Your task to perform on an android device: Open calendar and show me the second week of next month Image 0: 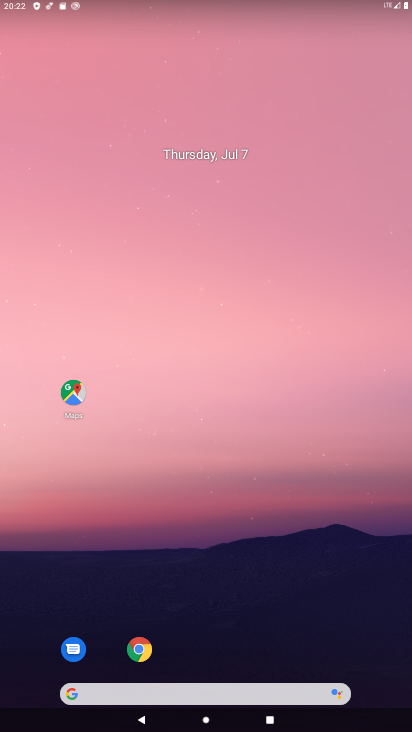
Step 0: drag from (256, 622) to (185, 252)
Your task to perform on an android device: Open calendar and show me the second week of next month Image 1: 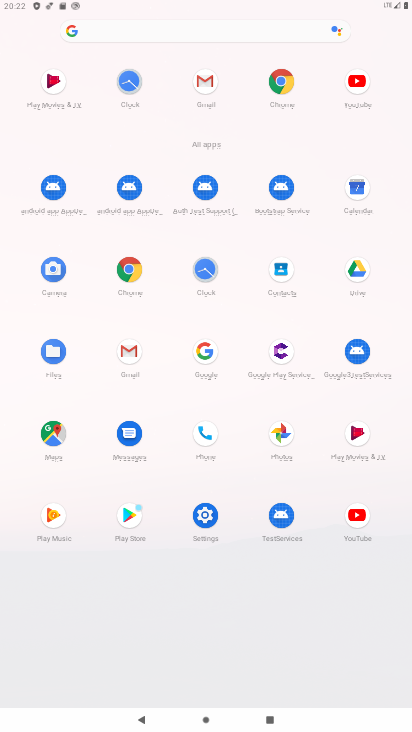
Step 1: click (304, 226)
Your task to perform on an android device: Open calendar and show me the second week of next month Image 2: 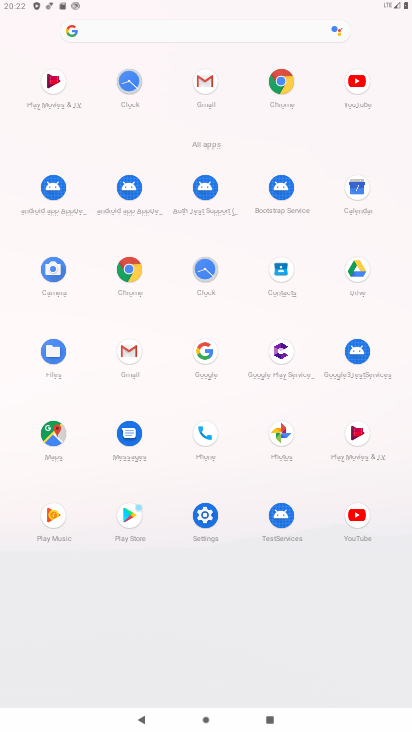
Step 2: click (353, 184)
Your task to perform on an android device: Open calendar and show me the second week of next month Image 3: 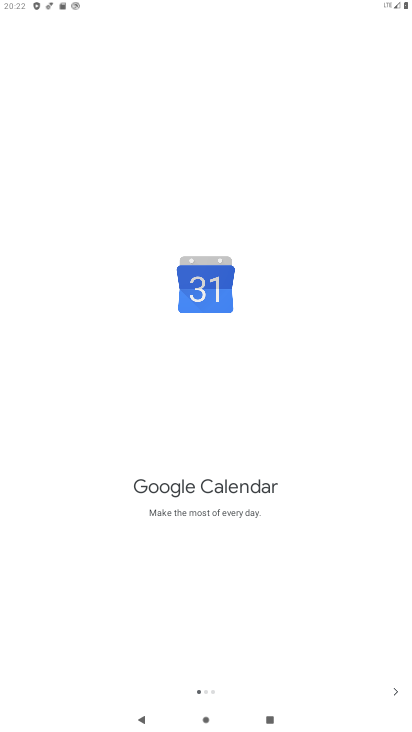
Step 3: click (398, 695)
Your task to perform on an android device: Open calendar and show me the second week of next month Image 4: 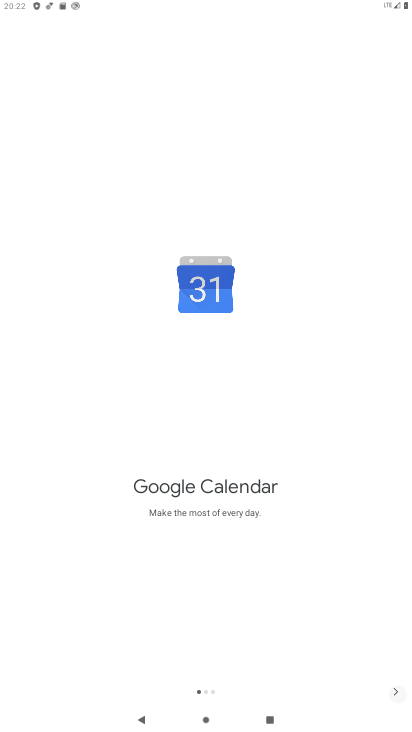
Step 4: click (398, 695)
Your task to perform on an android device: Open calendar and show me the second week of next month Image 5: 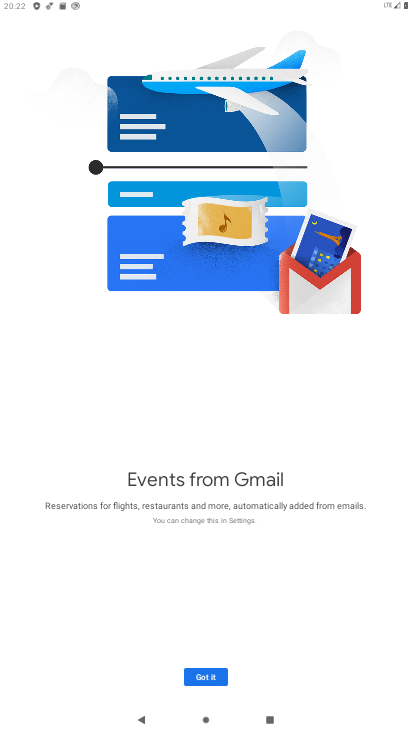
Step 5: click (209, 673)
Your task to perform on an android device: Open calendar and show me the second week of next month Image 6: 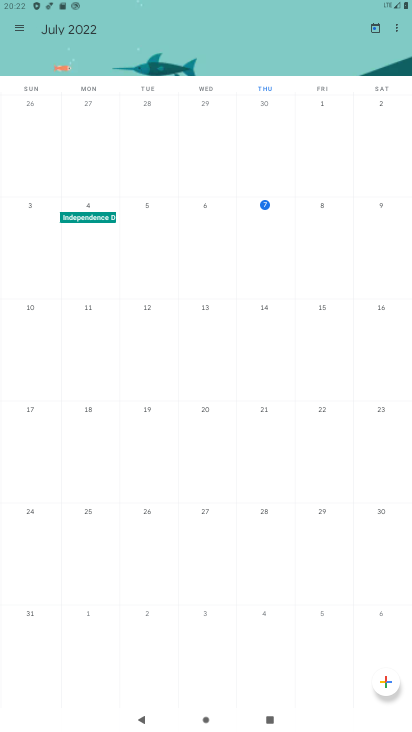
Step 6: click (14, 26)
Your task to perform on an android device: Open calendar and show me the second week of next month Image 7: 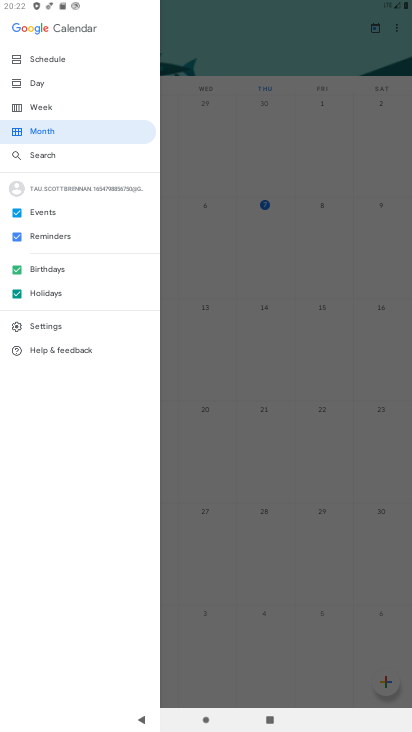
Step 7: click (51, 103)
Your task to perform on an android device: Open calendar and show me the second week of next month Image 8: 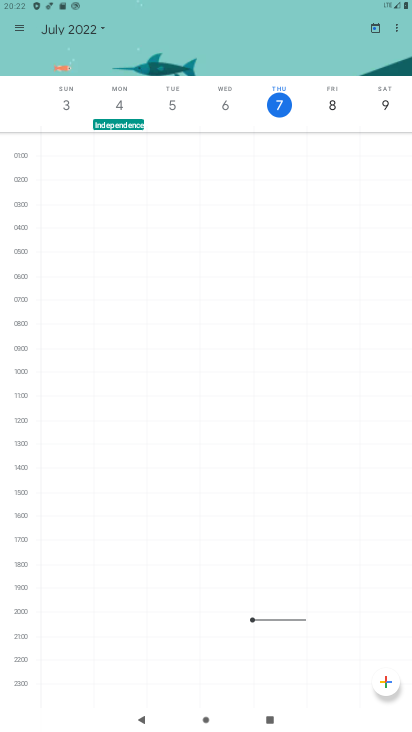
Step 8: click (95, 23)
Your task to perform on an android device: Open calendar and show me the second week of next month Image 9: 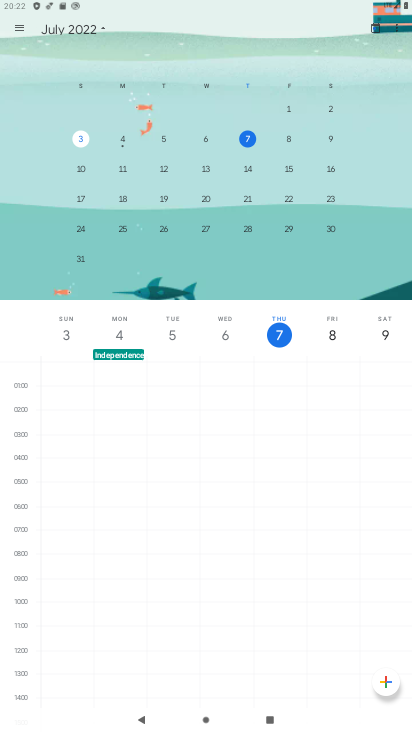
Step 9: drag from (346, 207) to (38, 202)
Your task to perform on an android device: Open calendar and show me the second week of next month Image 10: 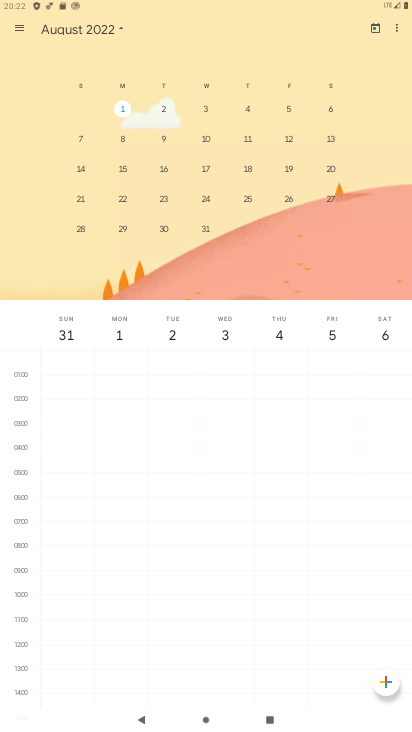
Step 10: click (122, 135)
Your task to perform on an android device: Open calendar and show me the second week of next month Image 11: 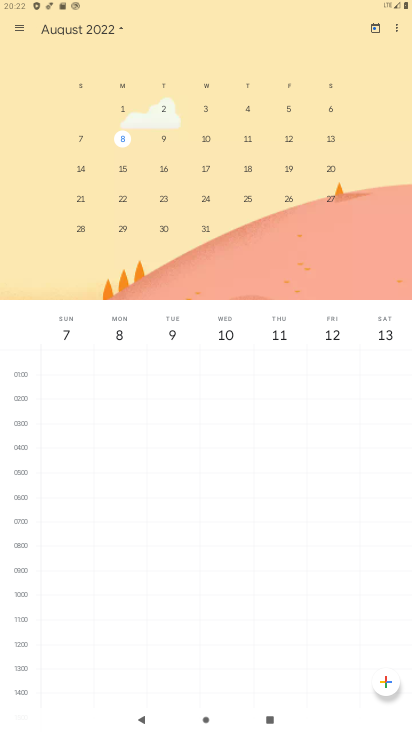
Step 11: task complete